Your task to perform on an android device: Search for top rated seafood restaurants on Google Maps Image 0: 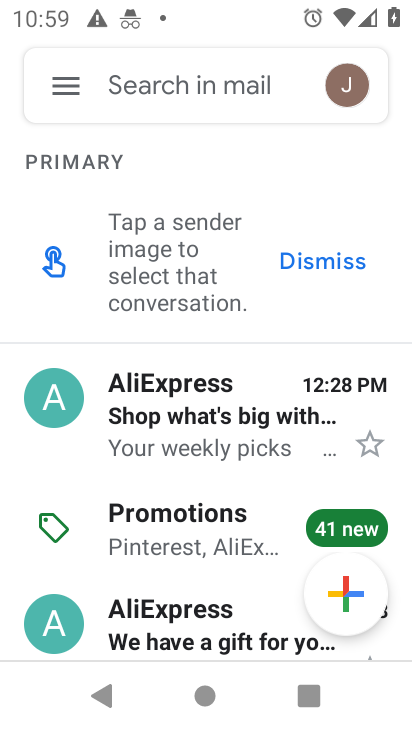
Step 0: press home button
Your task to perform on an android device: Search for top rated seafood restaurants on Google Maps Image 1: 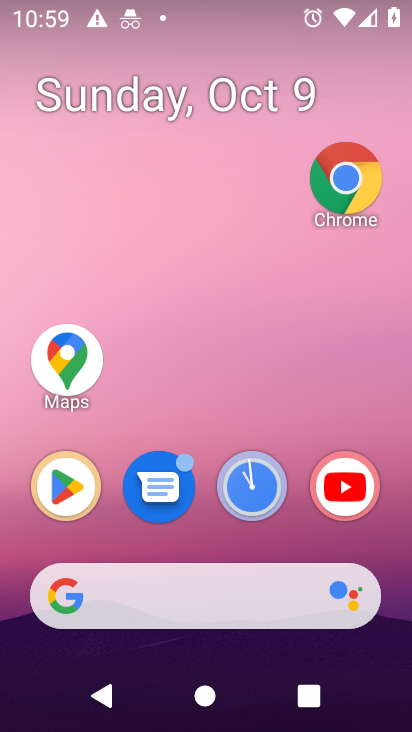
Step 1: drag from (249, 534) to (215, 116)
Your task to perform on an android device: Search for top rated seafood restaurants on Google Maps Image 2: 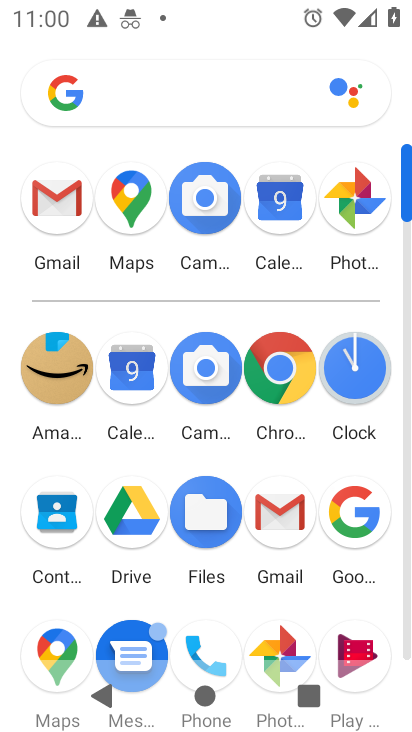
Step 2: drag from (276, 535) to (275, 259)
Your task to perform on an android device: Search for top rated seafood restaurants on Google Maps Image 3: 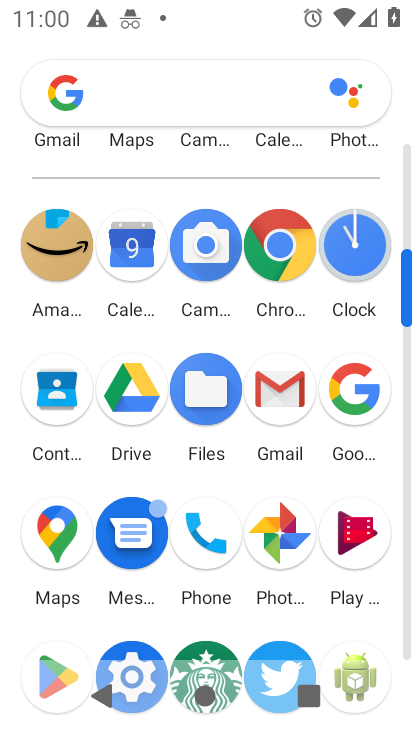
Step 3: click (55, 543)
Your task to perform on an android device: Search for top rated seafood restaurants on Google Maps Image 4: 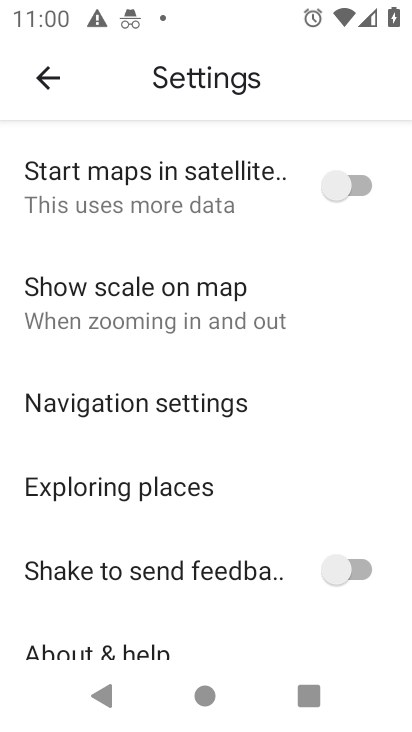
Step 4: click (21, 422)
Your task to perform on an android device: Search for top rated seafood restaurants on Google Maps Image 5: 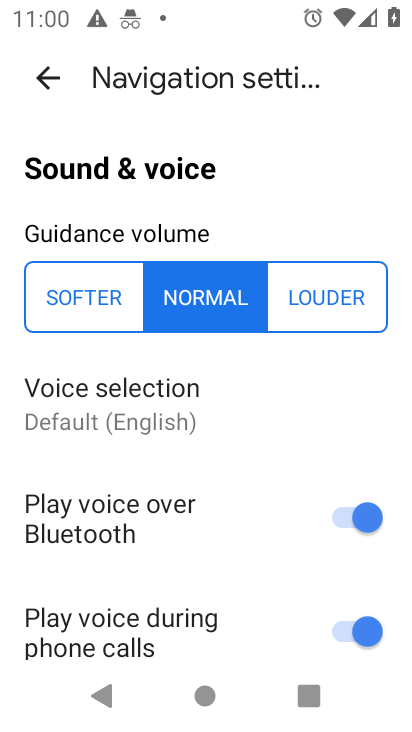
Step 5: click (58, 82)
Your task to perform on an android device: Search for top rated seafood restaurants on Google Maps Image 6: 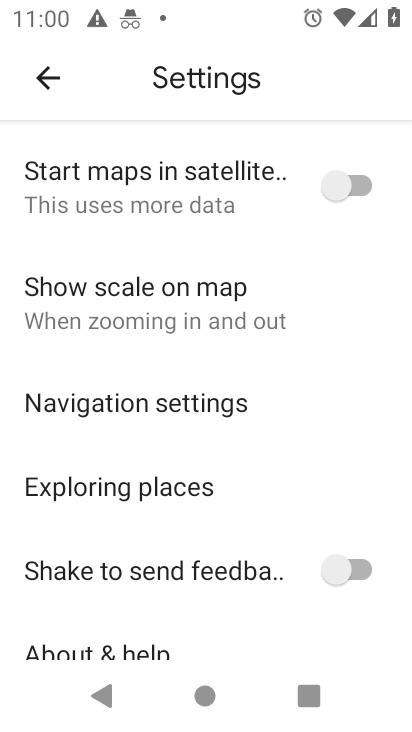
Step 6: click (58, 82)
Your task to perform on an android device: Search for top rated seafood restaurants on Google Maps Image 7: 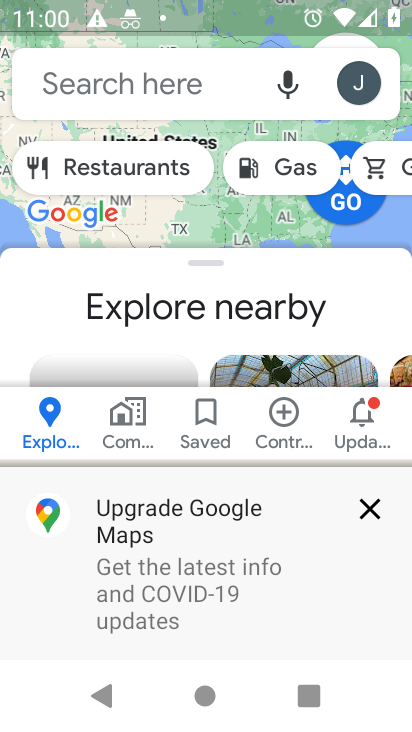
Step 7: click (103, 100)
Your task to perform on an android device: Search for top rated seafood restaurants on Google Maps Image 8: 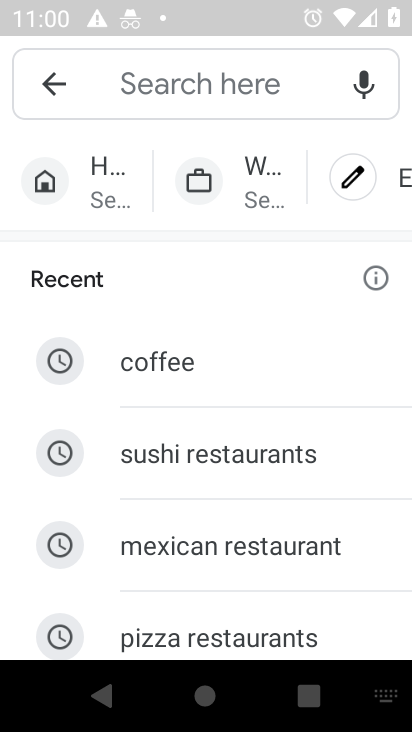
Step 8: type "top rated seafood restaurants"
Your task to perform on an android device: Search for top rated seafood restaurants on Google Maps Image 9: 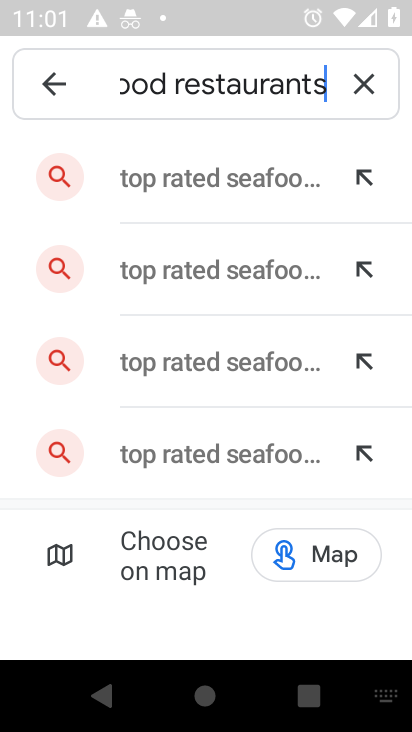
Step 9: click (288, 182)
Your task to perform on an android device: Search for top rated seafood restaurants on Google Maps Image 10: 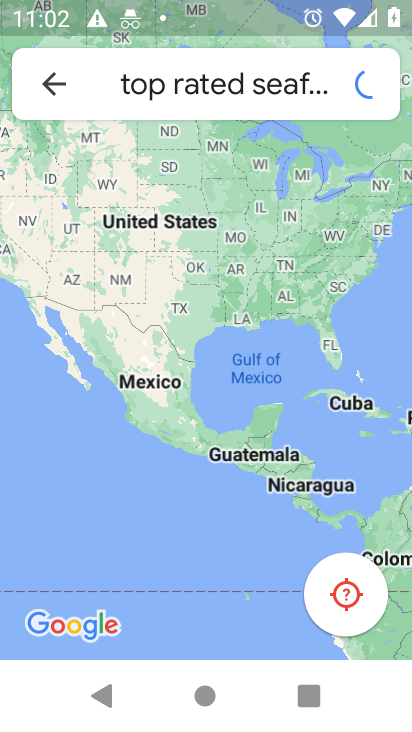
Step 10: task complete